Your task to perform on an android device: Open accessibility settings Image 0: 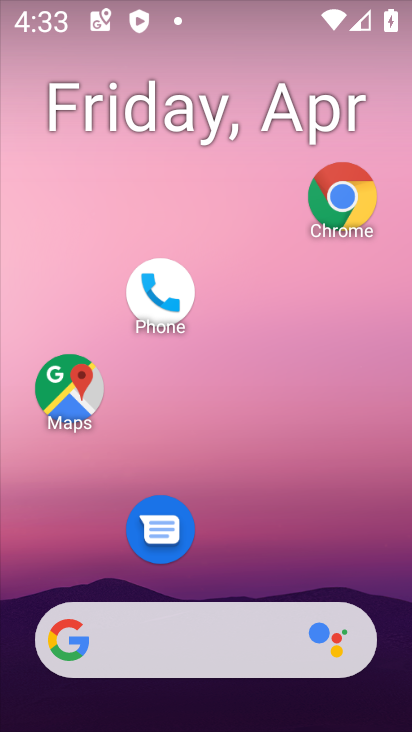
Step 0: drag from (216, 581) to (255, 12)
Your task to perform on an android device: Open accessibility settings Image 1: 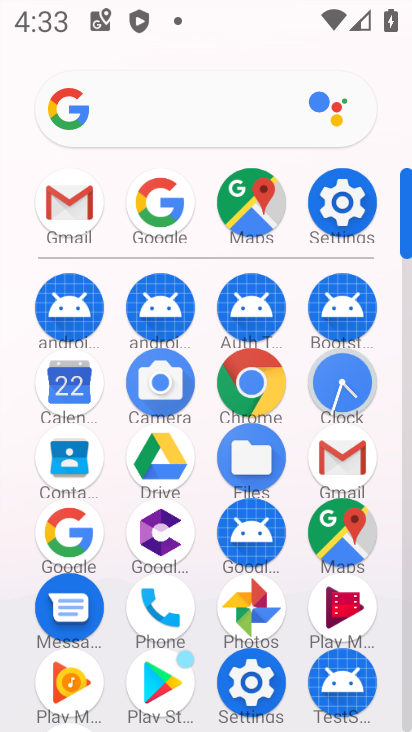
Step 1: click (249, 675)
Your task to perform on an android device: Open accessibility settings Image 2: 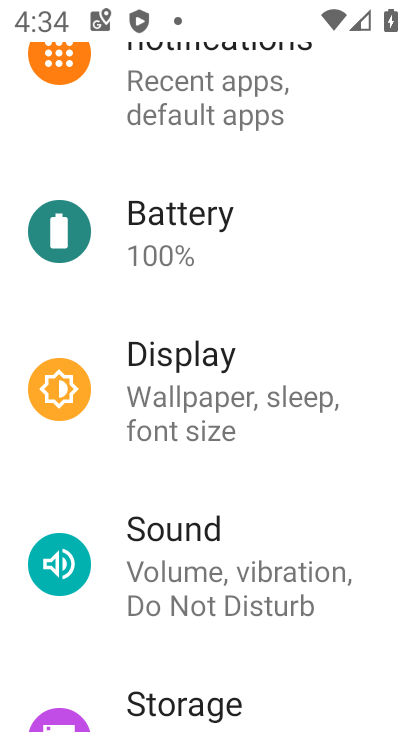
Step 2: drag from (254, 641) to (254, 184)
Your task to perform on an android device: Open accessibility settings Image 3: 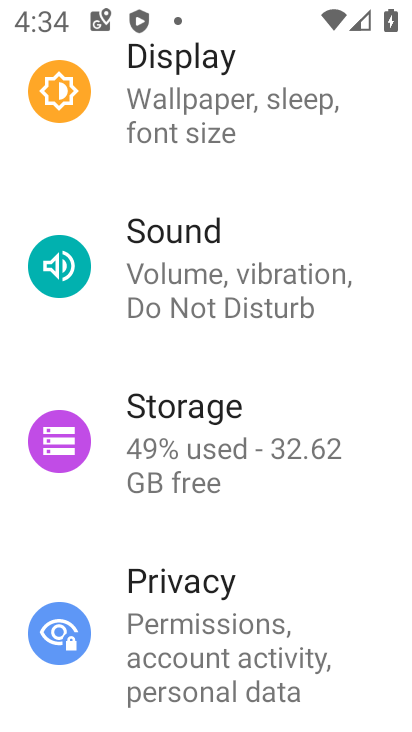
Step 3: drag from (236, 667) to (272, 201)
Your task to perform on an android device: Open accessibility settings Image 4: 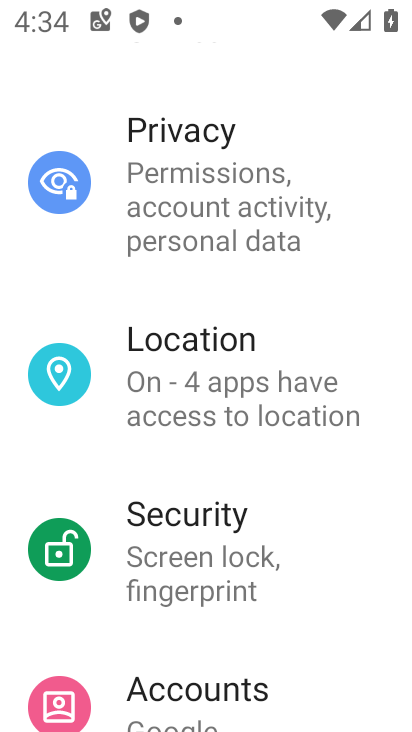
Step 4: drag from (236, 657) to (263, 144)
Your task to perform on an android device: Open accessibility settings Image 5: 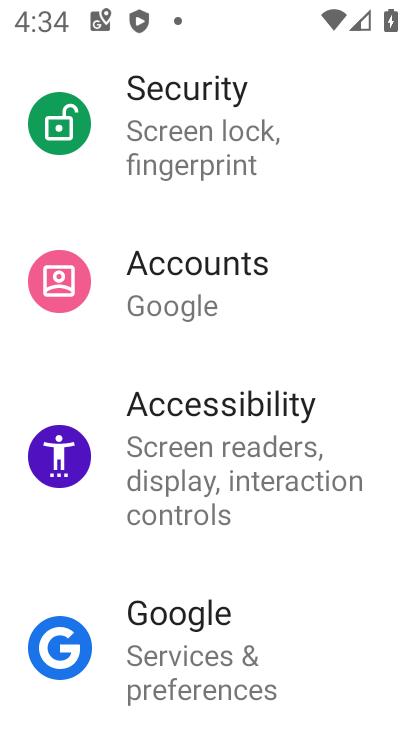
Step 5: click (103, 429)
Your task to perform on an android device: Open accessibility settings Image 6: 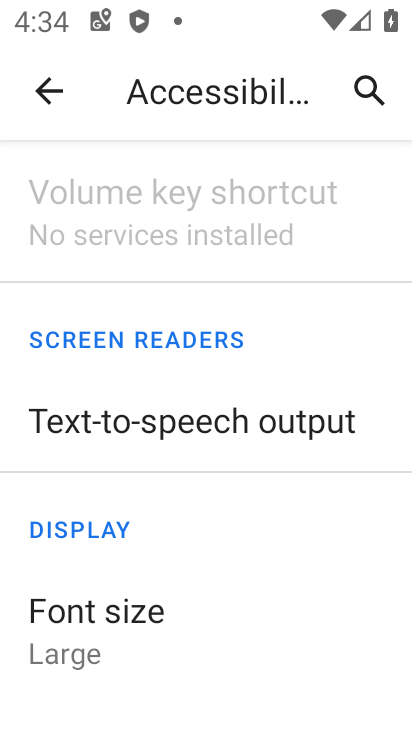
Step 6: task complete